Your task to perform on an android device: turn notification dots on Image 0: 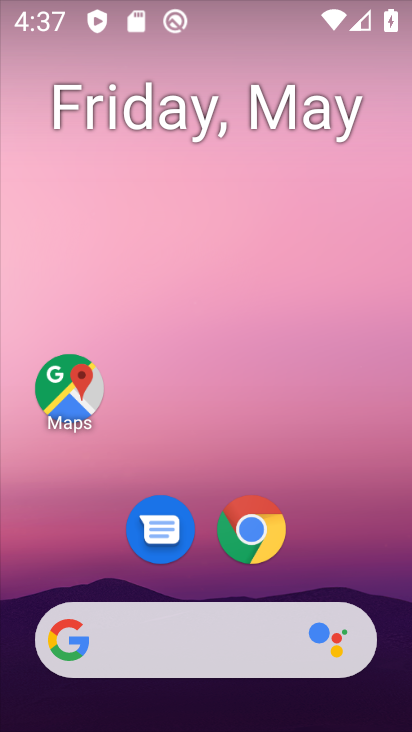
Step 0: drag from (332, 374) to (325, 132)
Your task to perform on an android device: turn notification dots on Image 1: 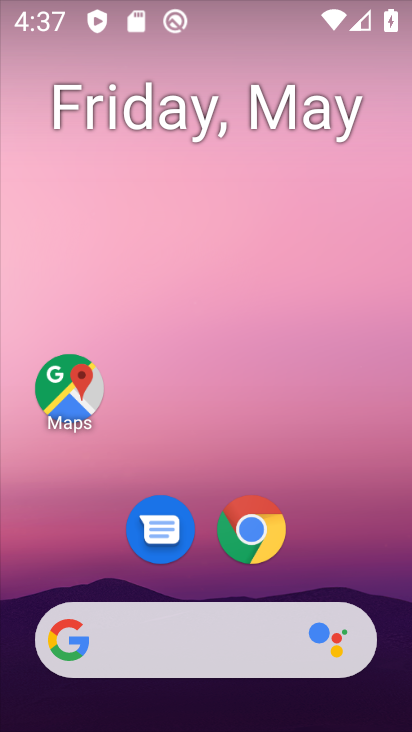
Step 1: drag from (332, 542) to (345, 44)
Your task to perform on an android device: turn notification dots on Image 2: 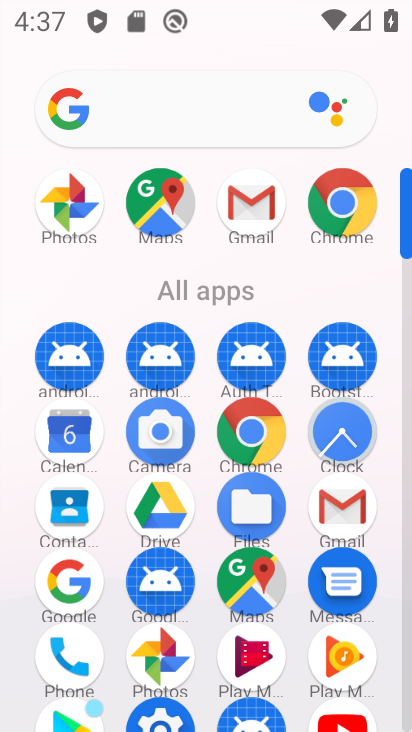
Step 2: click (157, 718)
Your task to perform on an android device: turn notification dots on Image 3: 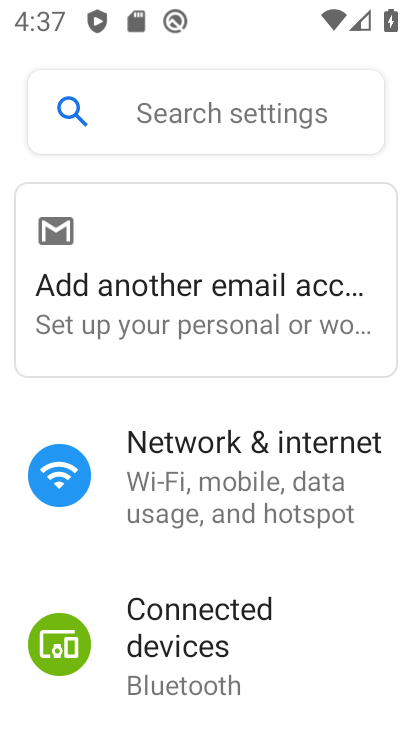
Step 3: drag from (264, 685) to (337, 284)
Your task to perform on an android device: turn notification dots on Image 4: 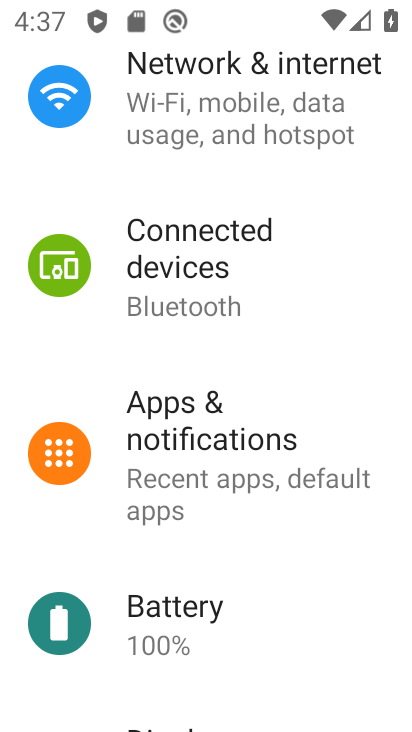
Step 4: click (216, 479)
Your task to perform on an android device: turn notification dots on Image 5: 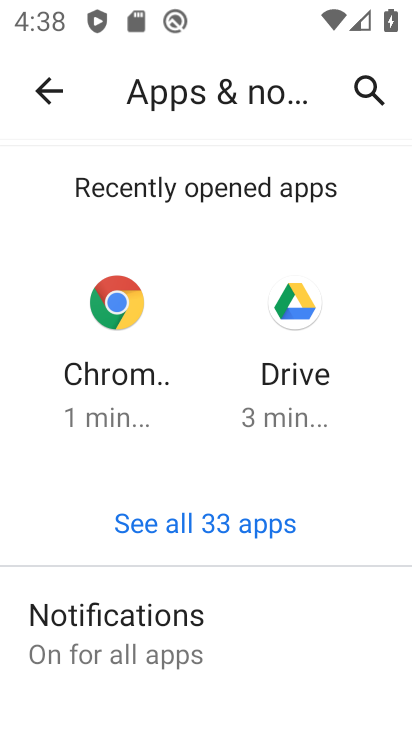
Step 5: drag from (253, 670) to (250, 156)
Your task to perform on an android device: turn notification dots on Image 6: 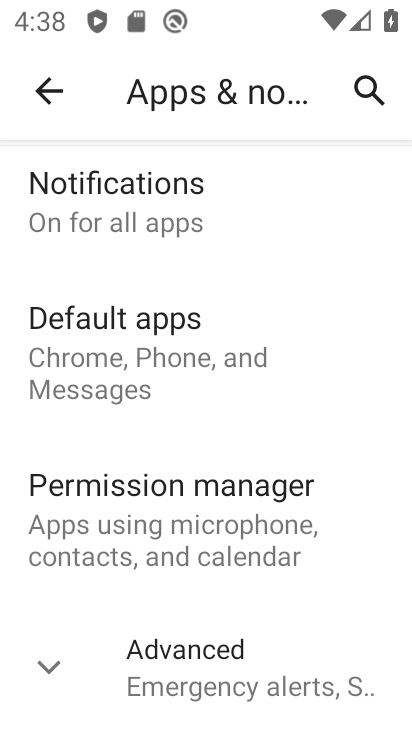
Step 6: drag from (211, 612) to (187, 325)
Your task to perform on an android device: turn notification dots on Image 7: 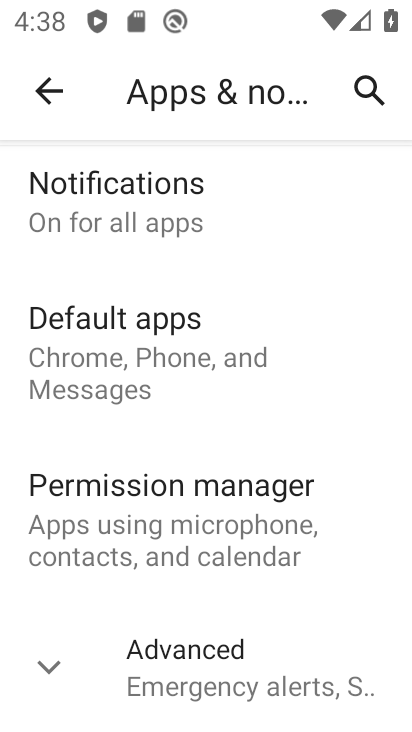
Step 7: drag from (324, 544) to (335, 212)
Your task to perform on an android device: turn notification dots on Image 8: 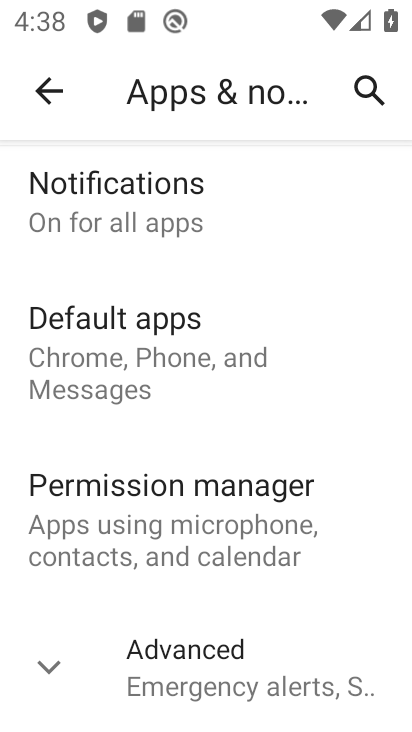
Step 8: click (221, 673)
Your task to perform on an android device: turn notification dots on Image 9: 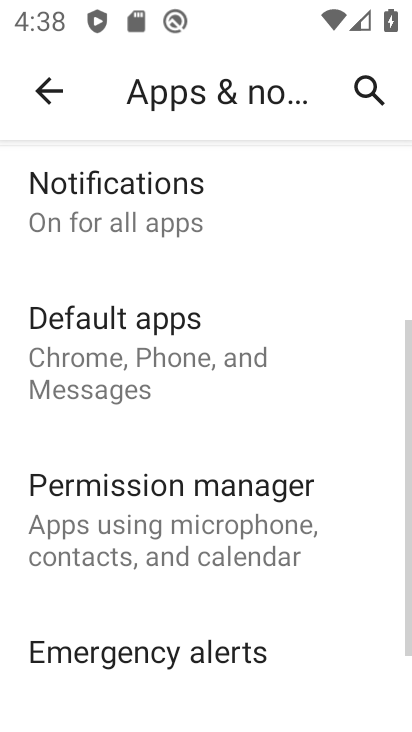
Step 9: drag from (221, 673) to (234, 202)
Your task to perform on an android device: turn notification dots on Image 10: 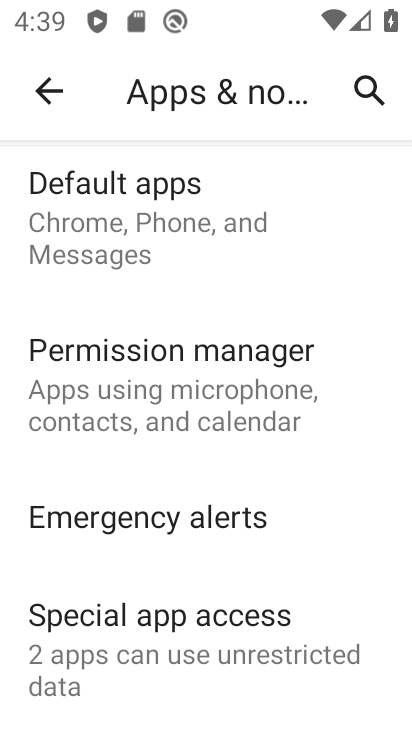
Step 10: drag from (222, 662) to (270, 308)
Your task to perform on an android device: turn notification dots on Image 11: 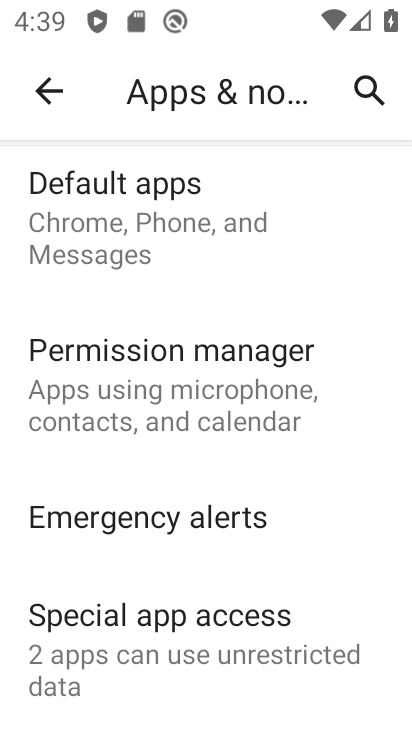
Step 11: drag from (276, 326) to (292, 725)
Your task to perform on an android device: turn notification dots on Image 12: 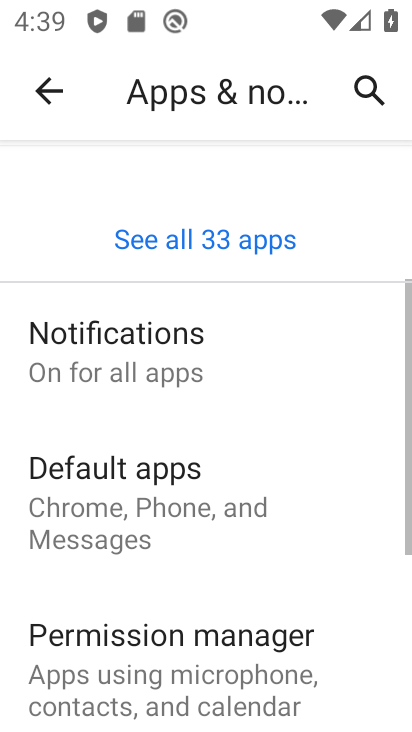
Step 12: click (220, 378)
Your task to perform on an android device: turn notification dots on Image 13: 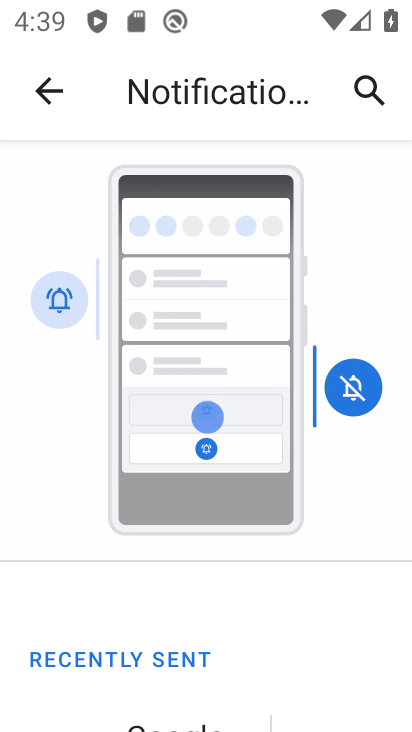
Step 13: drag from (274, 615) to (253, 7)
Your task to perform on an android device: turn notification dots on Image 14: 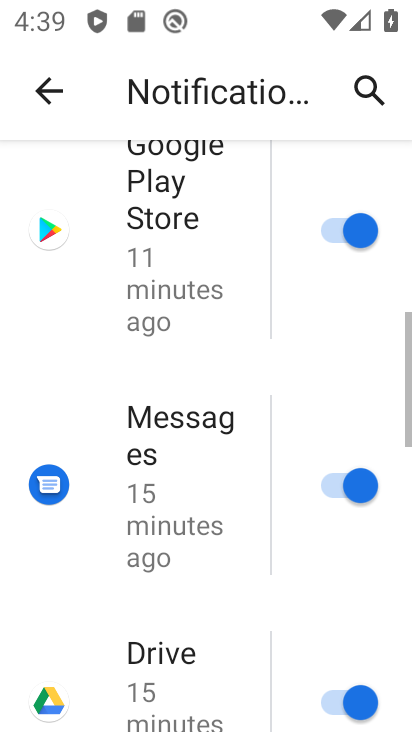
Step 14: drag from (255, 446) to (246, 98)
Your task to perform on an android device: turn notification dots on Image 15: 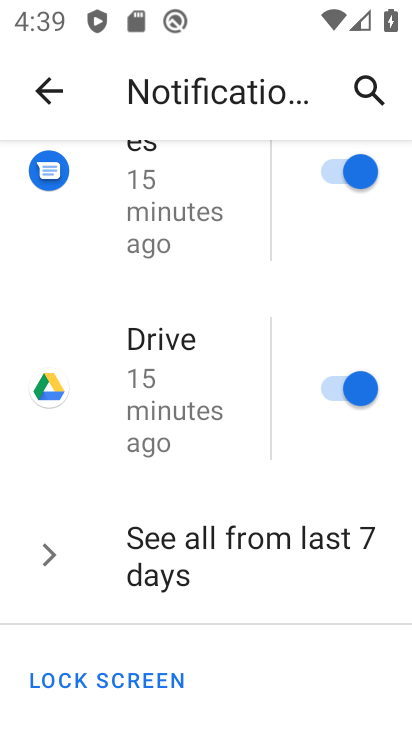
Step 15: drag from (288, 540) to (292, 146)
Your task to perform on an android device: turn notification dots on Image 16: 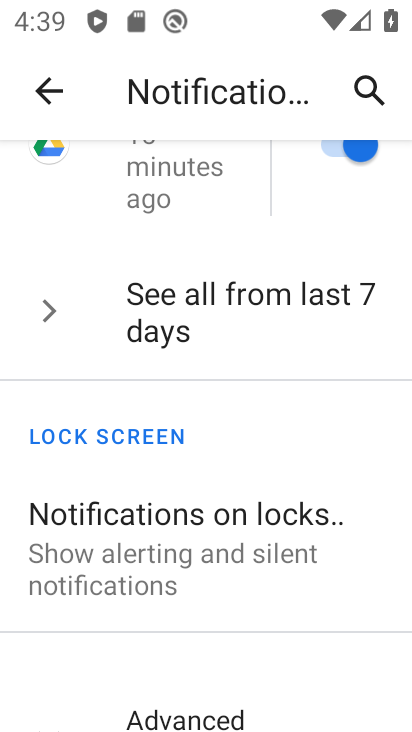
Step 16: drag from (231, 630) to (252, 134)
Your task to perform on an android device: turn notification dots on Image 17: 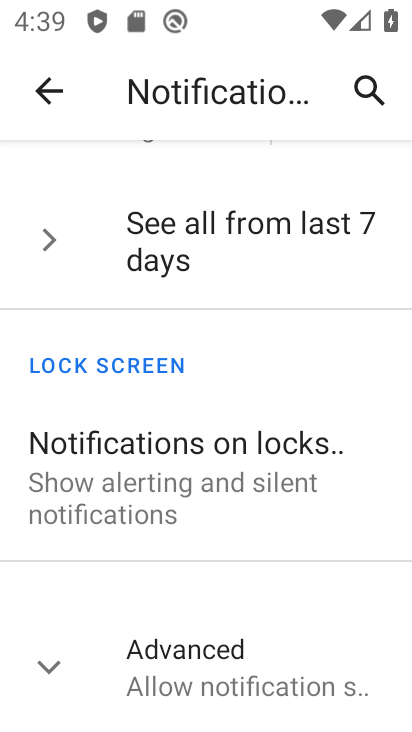
Step 17: click (242, 677)
Your task to perform on an android device: turn notification dots on Image 18: 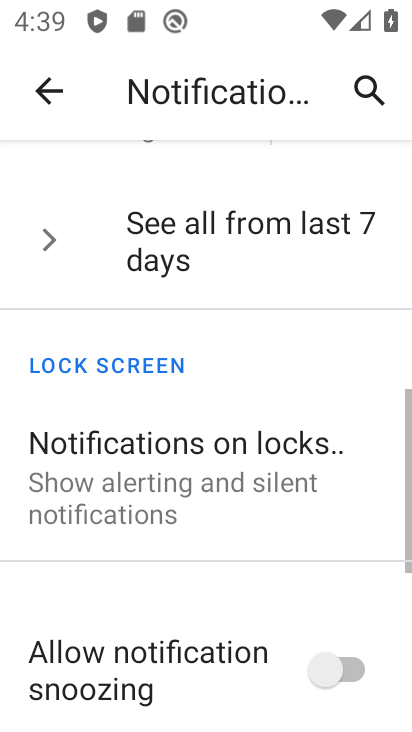
Step 18: drag from (242, 677) to (289, 205)
Your task to perform on an android device: turn notification dots on Image 19: 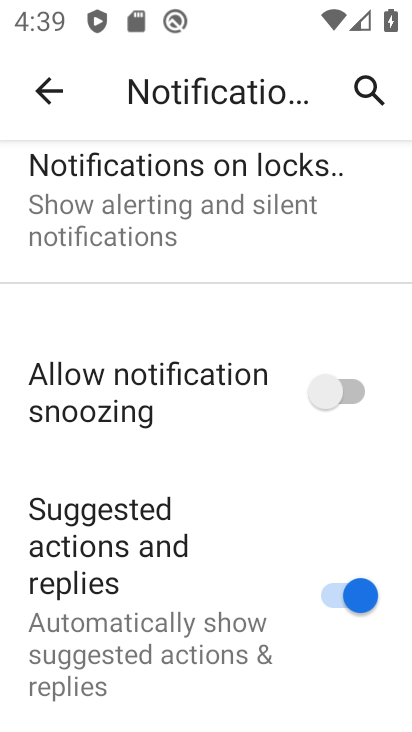
Step 19: drag from (225, 580) to (255, 308)
Your task to perform on an android device: turn notification dots on Image 20: 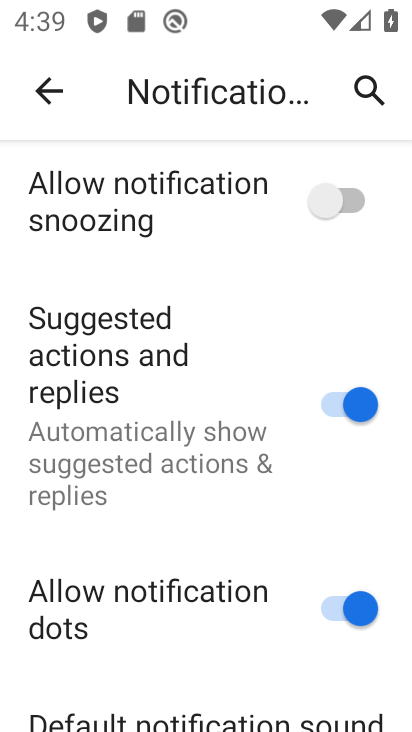
Step 20: drag from (214, 648) to (223, 295)
Your task to perform on an android device: turn notification dots on Image 21: 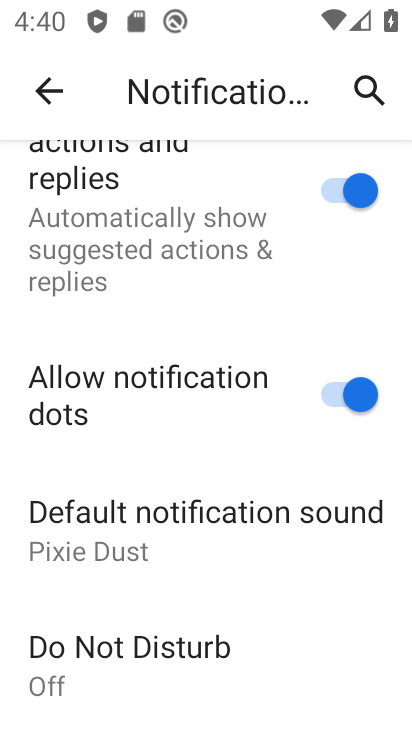
Step 21: drag from (267, 678) to (278, 548)
Your task to perform on an android device: turn notification dots on Image 22: 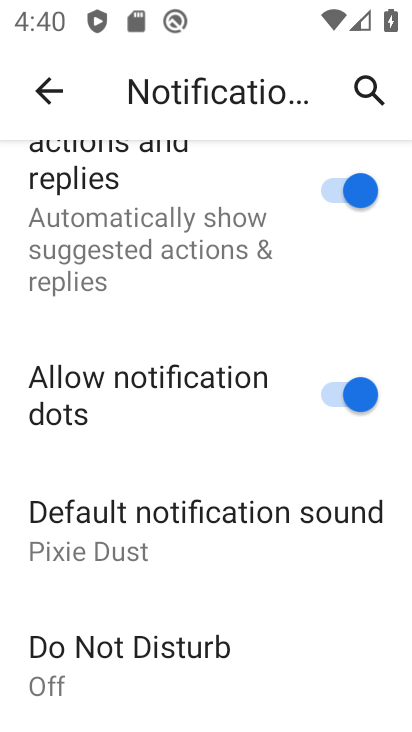
Step 22: click (314, 401)
Your task to perform on an android device: turn notification dots on Image 23: 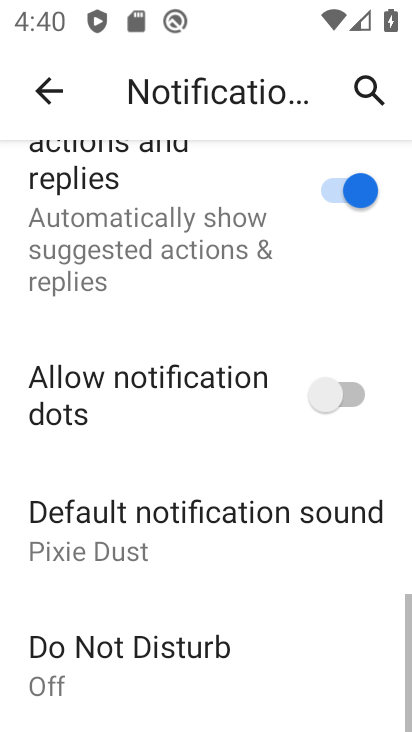
Step 23: click (314, 401)
Your task to perform on an android device: turn notification dots on Image 24: 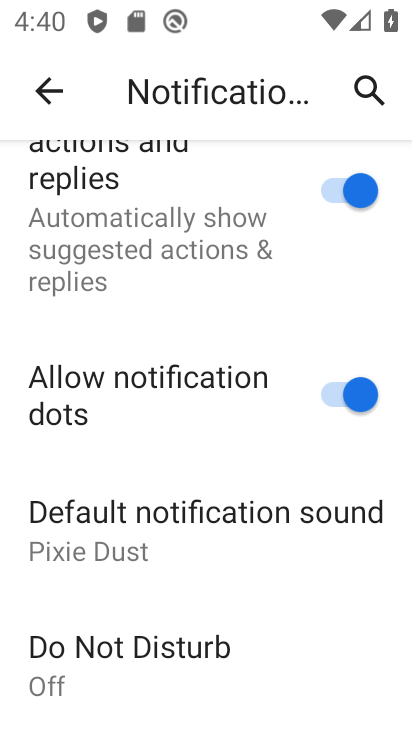
Step 24: task complete